Your task to perform on an android device: allow cookies in the chrome app Image 0: 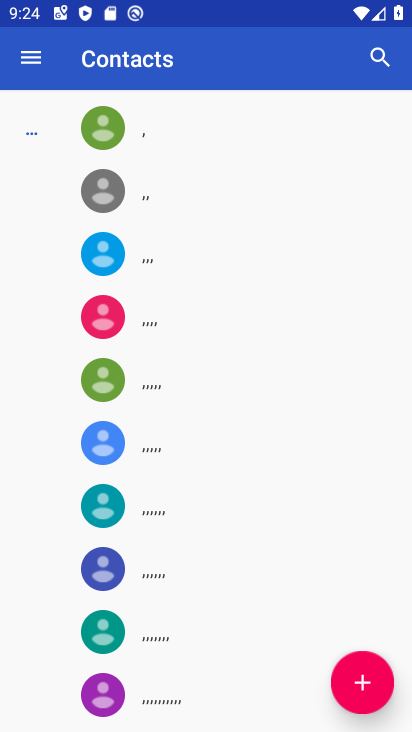
Step 0: press home button
Your task to perform on an android device: allow cookies in the chrome app Image 1: 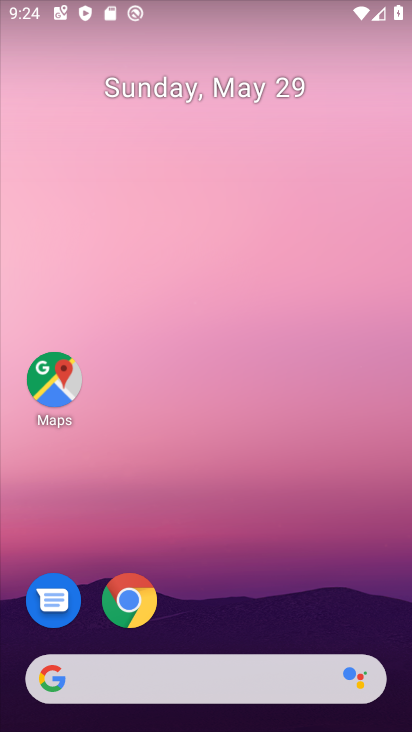
Step 1: click (125, 607)
Your task to perform on an android device: allow cookies in the chrome app Image 2: 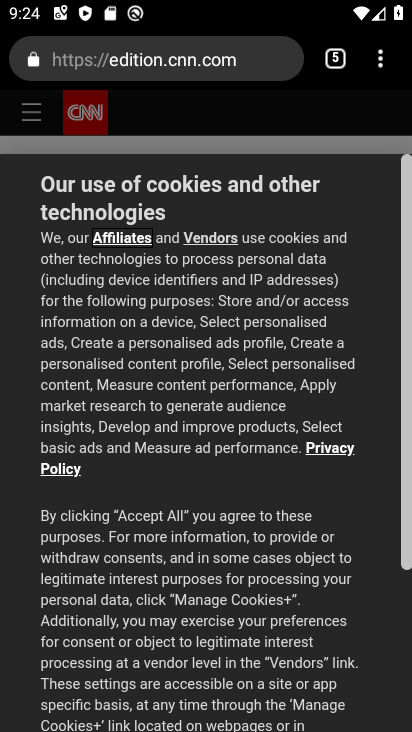
Step 2: click (384, 65)
Your task to perform on an android device: allow cookies in the chrome app Image 3: 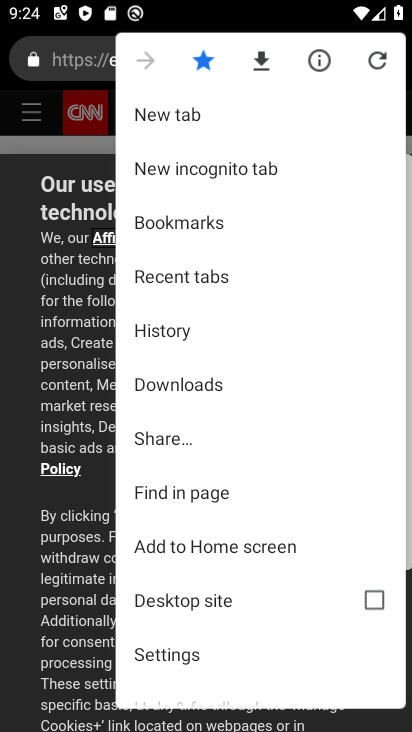
Step 3: click (161, 652)
Your task to perform on an android device: allow cookies in the chrome app Image 4: 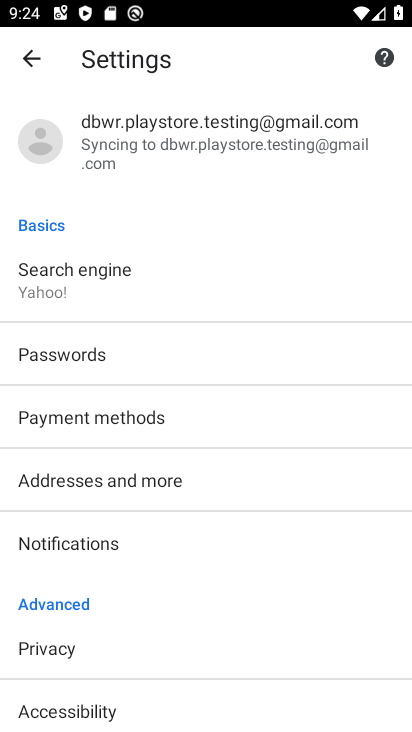
Step 4: drag from (144, 699) to (144, 262)
Your task to perform on an android device: allow cookies in the chrome app Image 5: 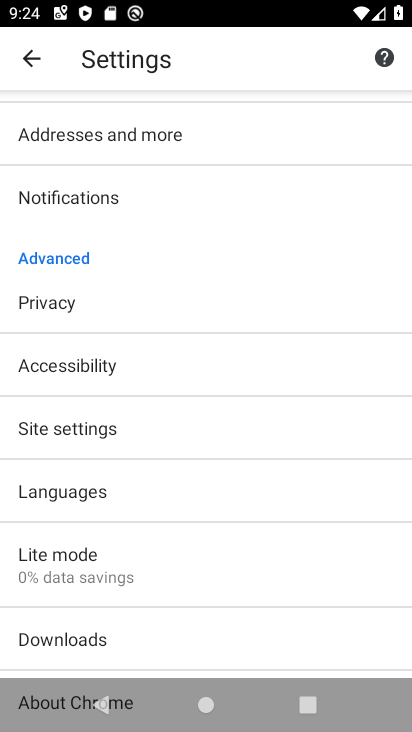
Step 5: click (88, 427)
Your task to perform on an android device: allow cookies in the chrome app Image 6: 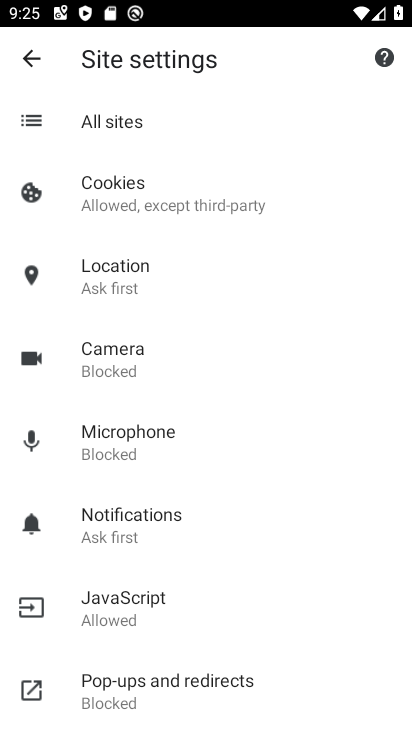
Step 6: click (103, 197)
Your task to perform on an android device: allow cookies in the chrome app Image 7: 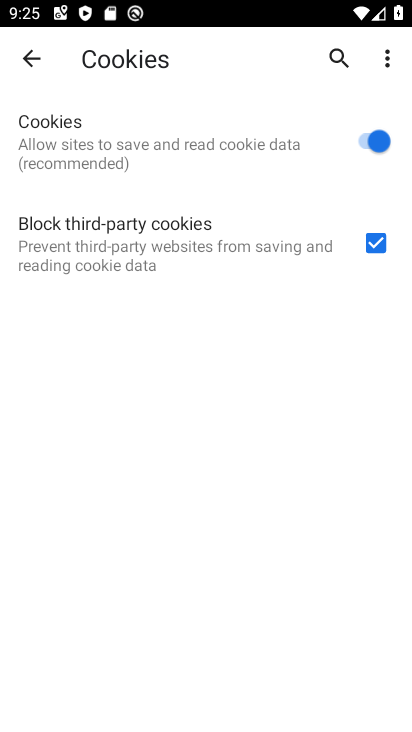
Step 7: task complete